Your task to perform on an android device: toggle airplane mode Image 0: 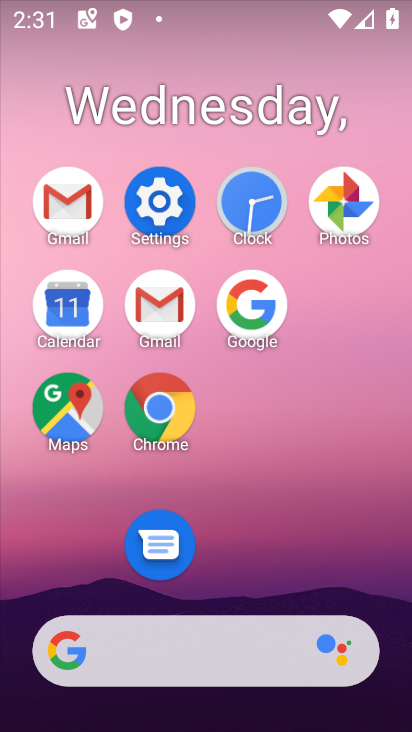
Step 0: click (165, 208)
Your task to perform on an android device: toggle airplane mode Image 1: 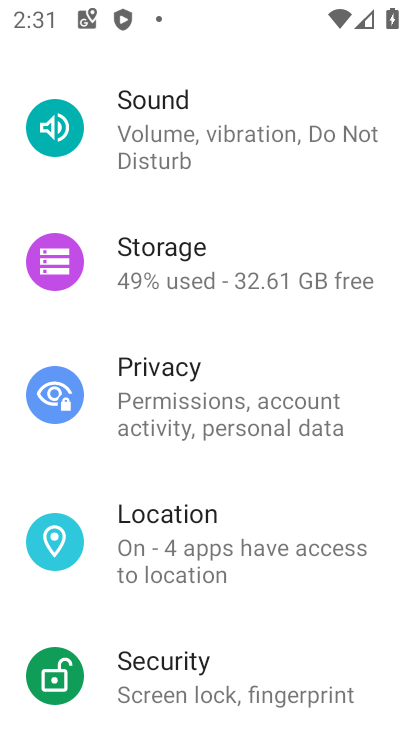
Step 1: drag from (237, 173) to (330, 612)
Your task to perform on an android device: toggle airplane mode Image 2: 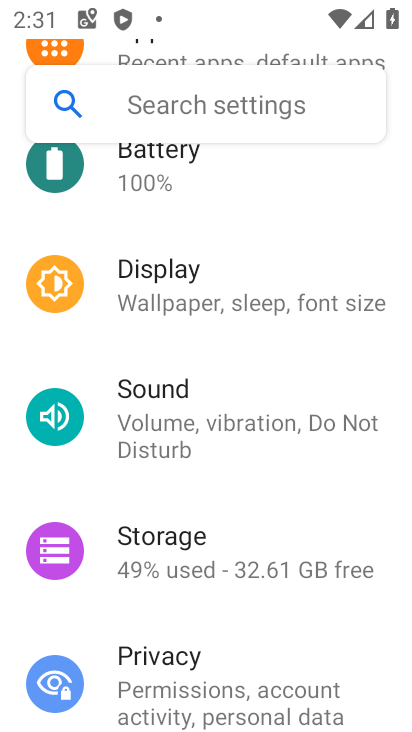
Step 2: drag from (289, 89) to (302, 465)
Your task to perform on an android device: toggle airplane mode Image 3: 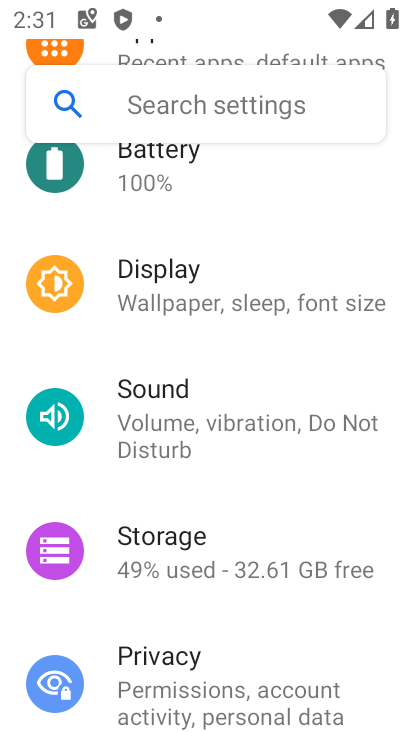
Step 3: drag from (281, 179) to (283, 465)
Your task to perform on an android device: toggle airplane mode Image 4: 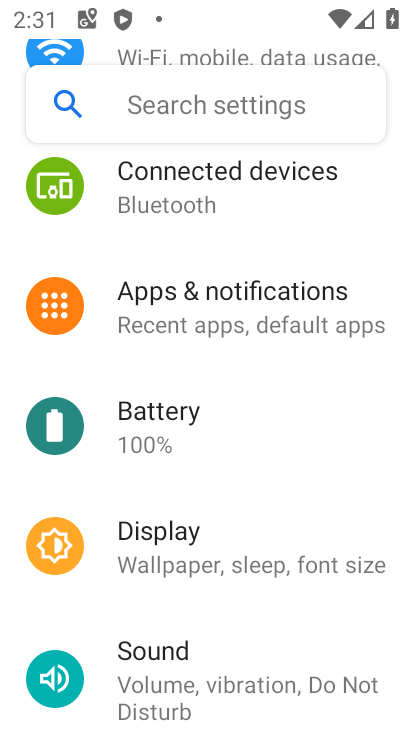
Step 4: drag from (297, 189) to (317, 466)
Your task to perform on an android device: toggle airplane mode Image 5: 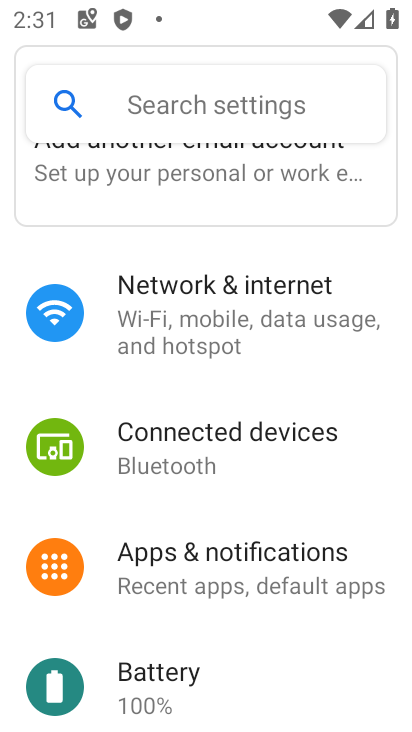
Step 5: click (264, 313)
Your task to perform on an android device: toggle airplane mode Image 6: 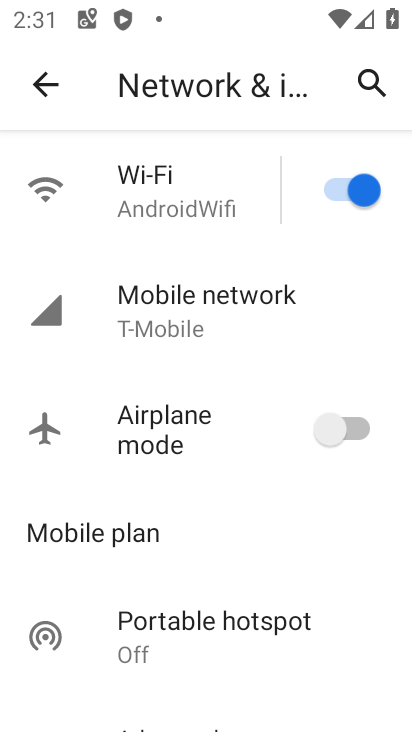
Step 6: click (334, 422)
Your task to perform on an android device: toggle airplane mode Image 7: 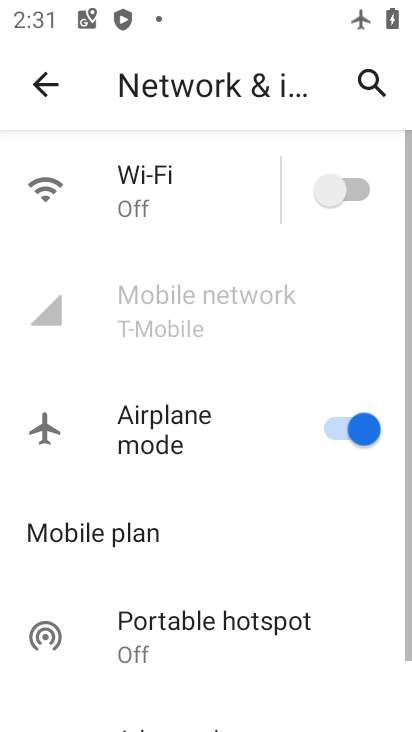
Step 7: task complete